Your task to perform on an android device: change timer sound Image 0: 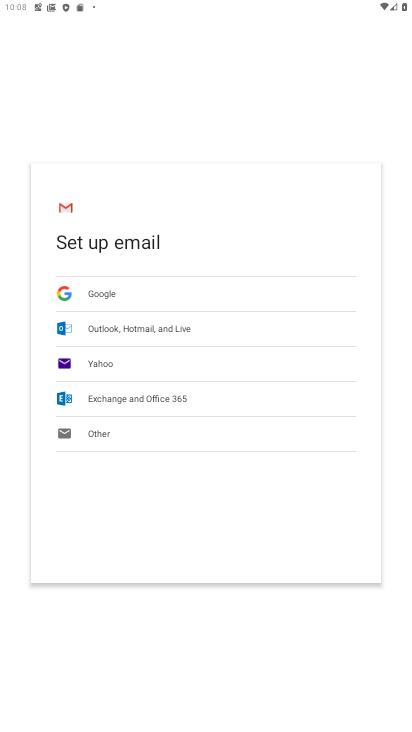
Step 0: press home button
Your task to perform on an android device: change timer sound Image 1: 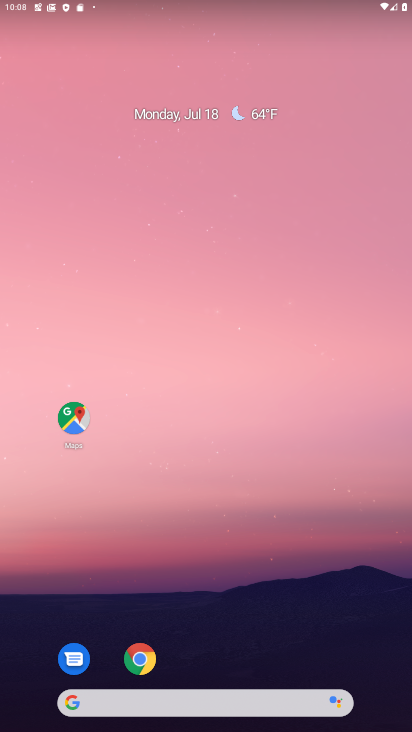
Step 1: drag from (280, 673) to (264, 25)
Your task to perform on an android device: change timer sound Image 2: 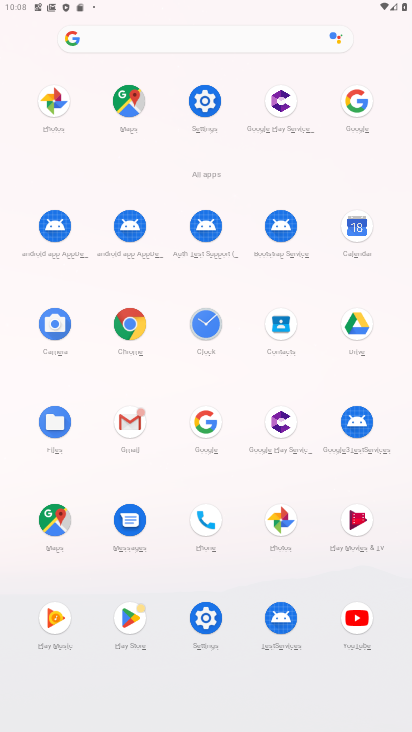
Step 2: click (208, 328)
Your task to perform on an android device: change timer sound Image 3: 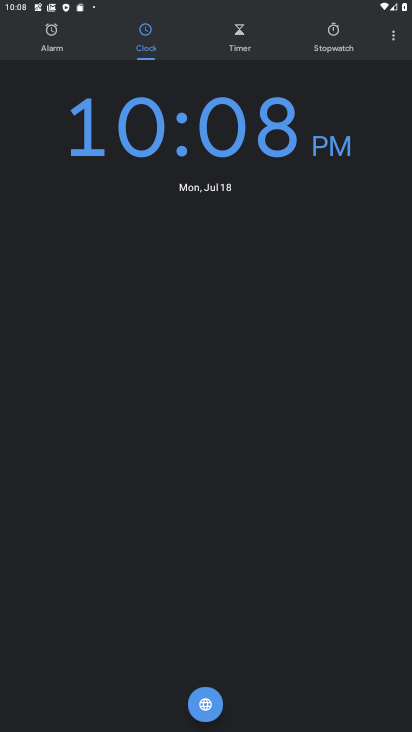
Step 3: click (390, 42)
Your task to perform on an android device: change timer sound Image 4: 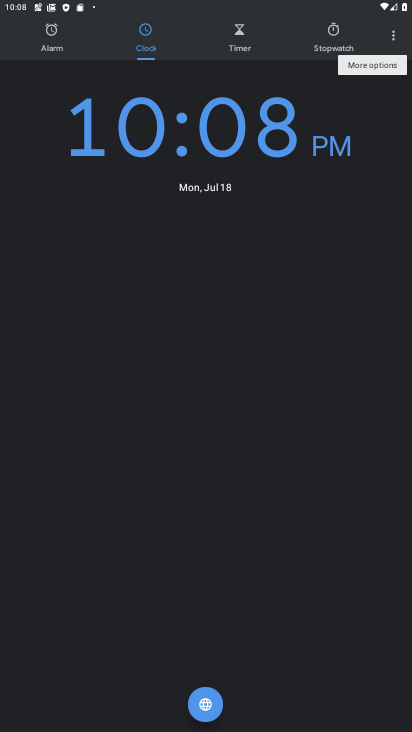
Step 4: click (390, 40)
Your task to perform on an android device: change timer sound Image 5: 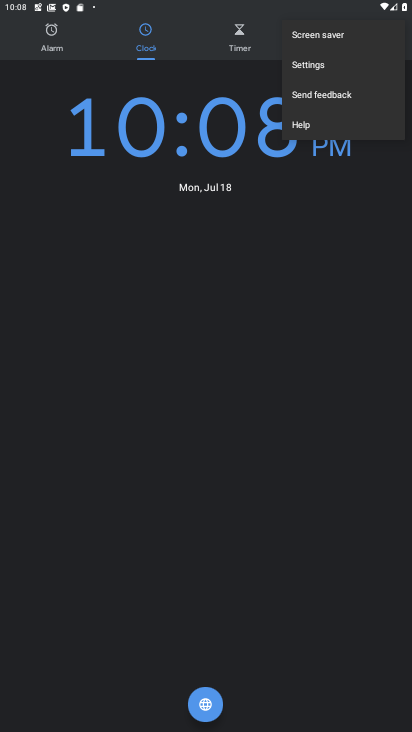
Step 5: click (323, 67)
Your task to perform on an android device: change timer sound Image 6: 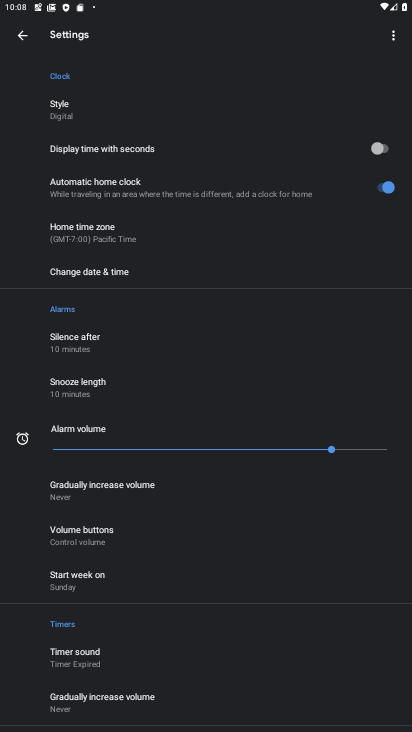
Step 6: click (99, 661)
Your task to perform on an android device: change timer sound Image 7: 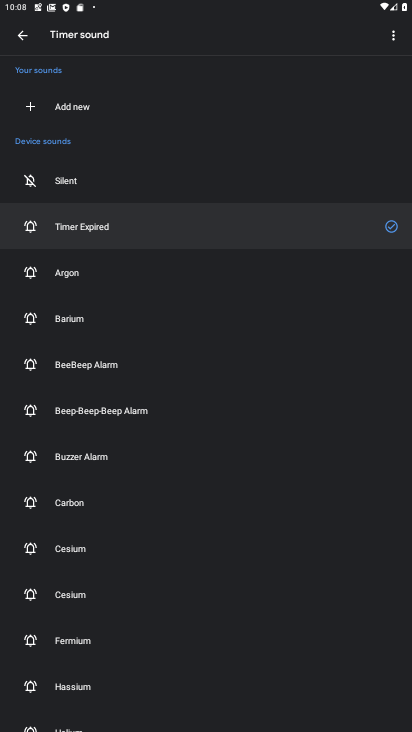
Step 7: click (89, 282)
Your task to perform on an android device: change timer sound Image 8: 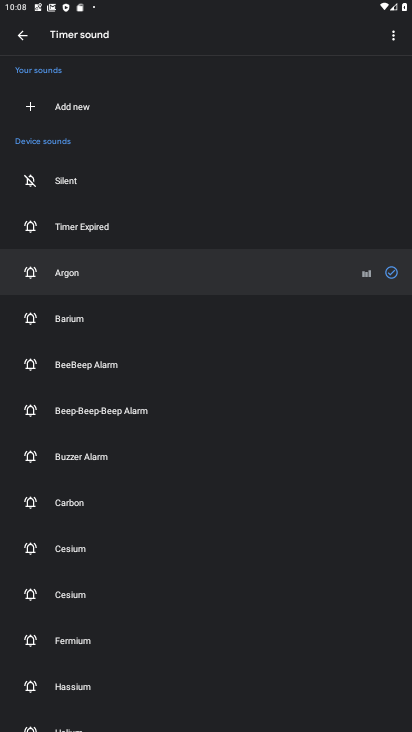
Step 8: task complete